Your task to perform on an android device: turn on translation in the chrome app Image 0: 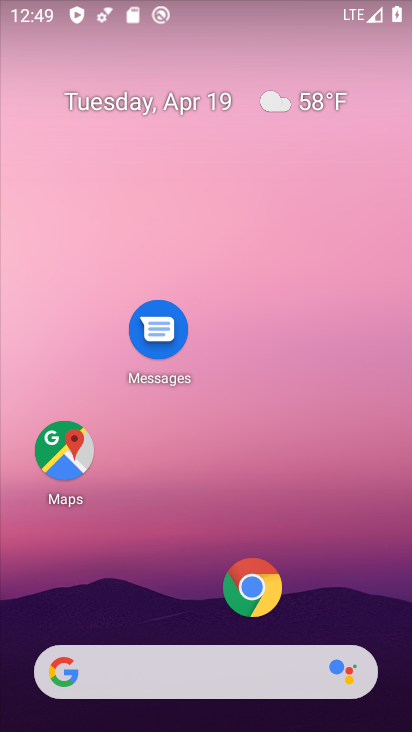
Step 0: click (251, 588)
Your task to perform on an android device: turn on translation in the chrome app Image 1: 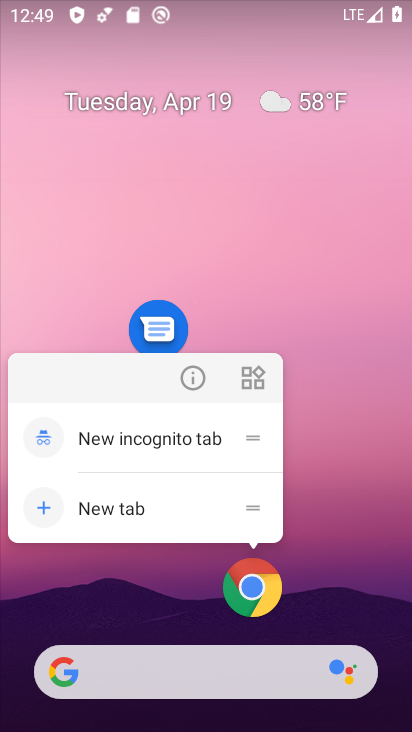
Step 1: click (257, 583)
Your task to perform on an android device: turn on translation in the chrome app Image 2: 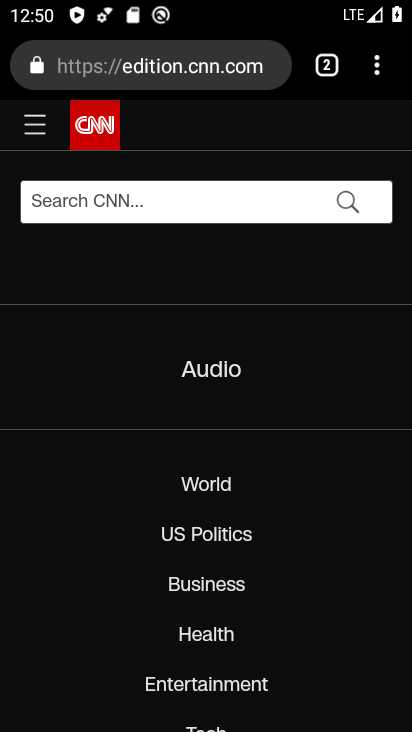
Step 2: click (373, 62)
Your task to perform on an android device: turn on translation in the chrome app Image 3: 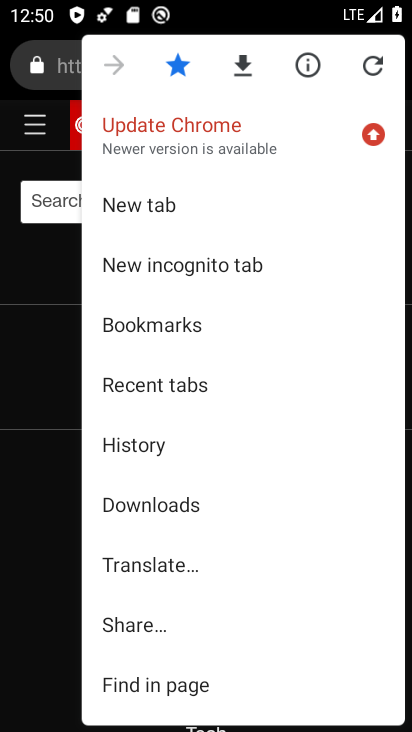
Step 3: drag from (235, 476) to (243, 212)
Your task to perform on an android device: turn on translation in the chrome app Image 4: 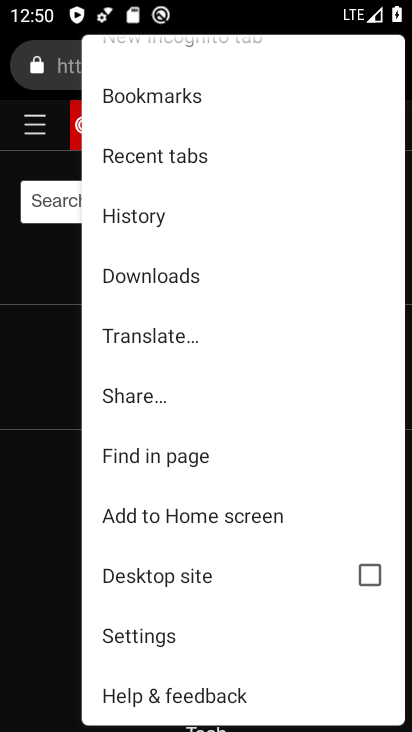
Step 4: click (152, 629)
Your task to perform on an android device: turn on translation in the chrome app Image 5: 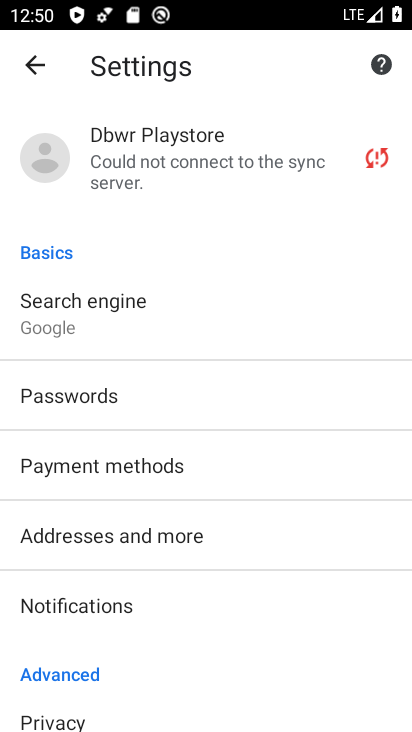
Step 5: drag from (208, 622) to (266, 185)
Your task to perform on an android device: turn on translation in the chrome app Image 6: 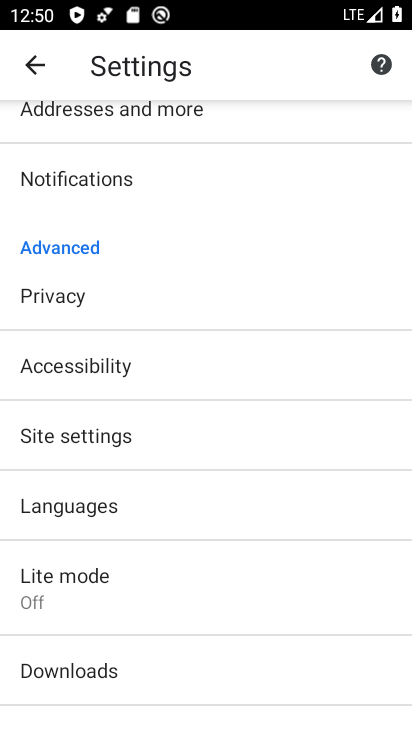
Step 6: click (87, 501)
Your task to perform on an android device: turn on translation in the chrome app Image 7: 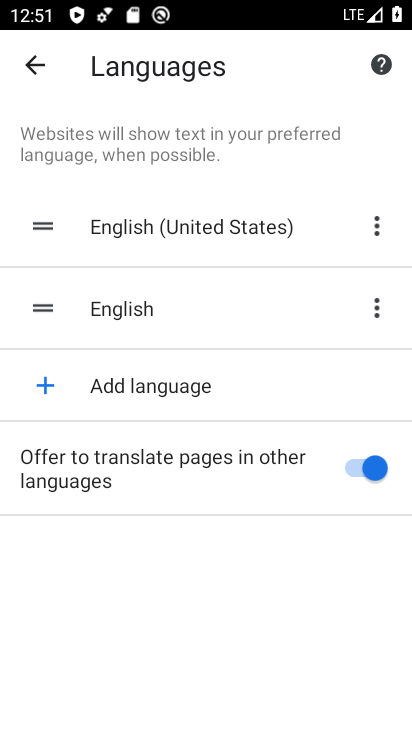
Step 7: task complete